Your task to perform on an android device: change the upload size in google photos Image 0: 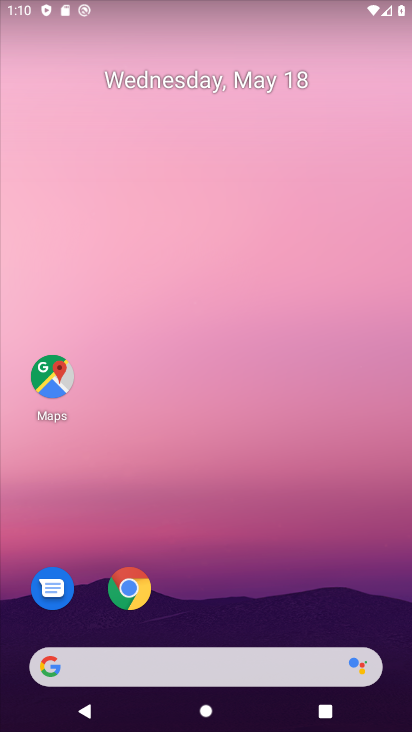
Step 0: drag from (375, 600) to (373, 103)
Your task to perform on an android device: change the upload size in google photos Image 1: 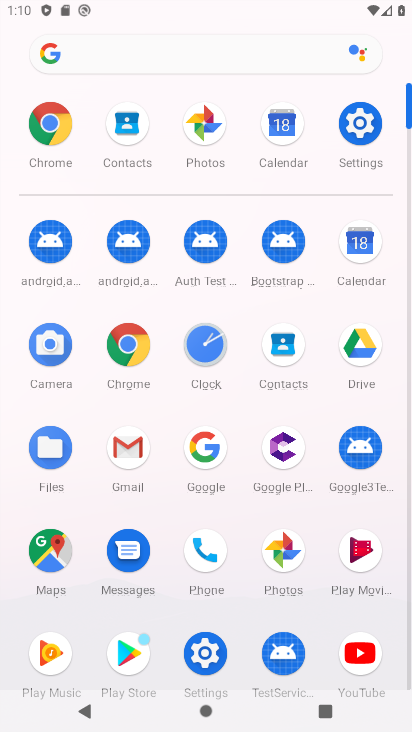
Step 1: click (291, 554)
Your task to perform on an android device: change the upload size in google photos Image 2: 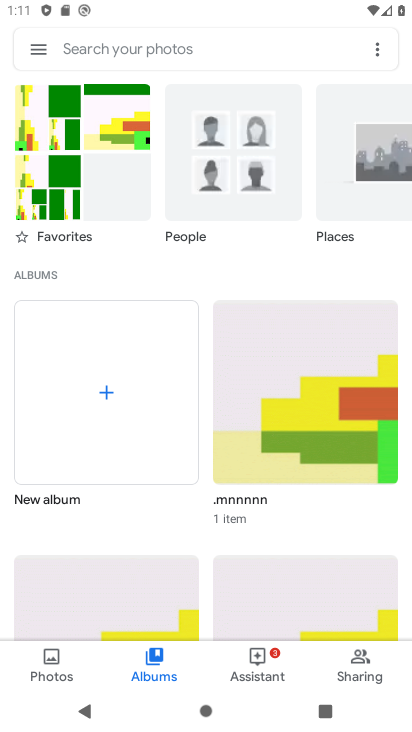
Step 2: click (33, 49)
Your task to perform on an android device: change the upload size in google photos Image 3: 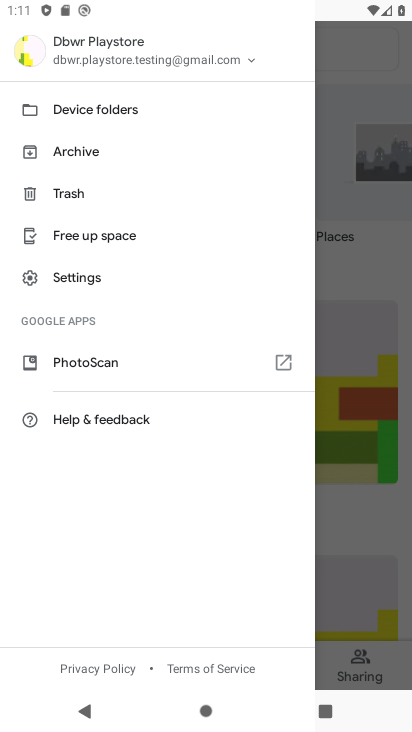
Step 3: click (95, 284)
Your task to perform on an android device: change the upload size in google photos Image 4: 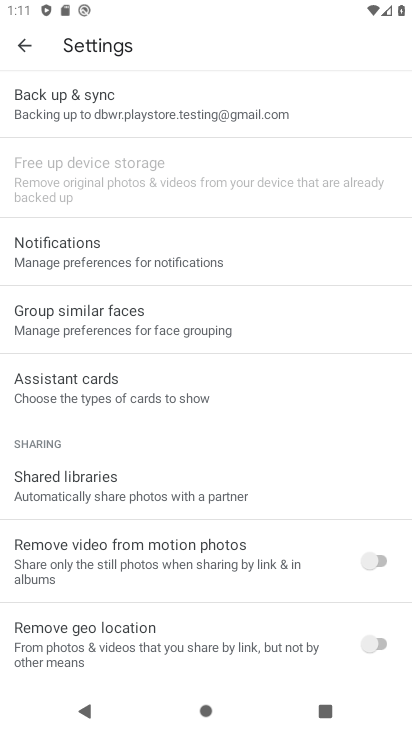
Step 4: click (215, 107)
Your task to perform on an android device: change the upload size in google photos Image 5: 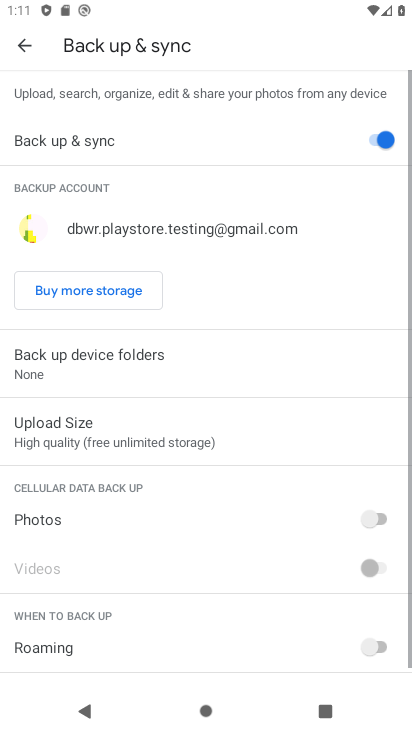
Step 5: drag from (221, 574) to (231, 432)
Your task to perform on an android device: change the upload size in google photos Image 6: 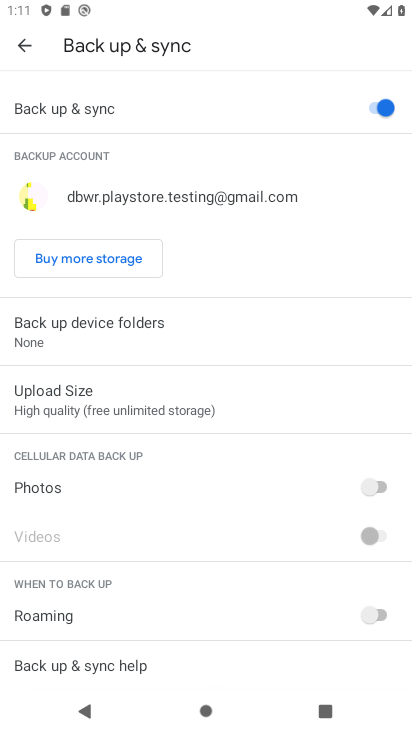
Step 6: click (164, 413)
Your task to perform on an android device: change the upload size in google photos Image 7: 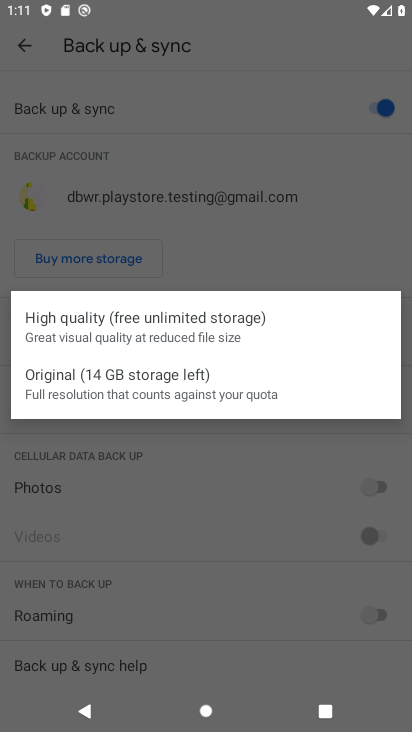
Step 7: click (174, 372)
Your task to perform on an android device: change the upload size in google photos Image 8: 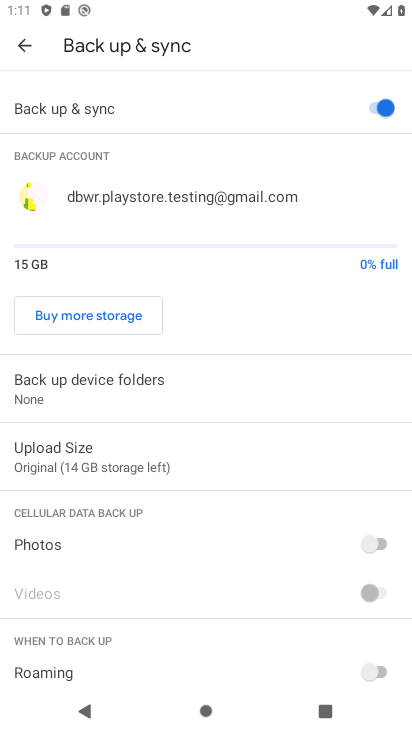
Step 8: task complete